Your task to perform on an android device: turn smart compose on in the gmail app Image 0: 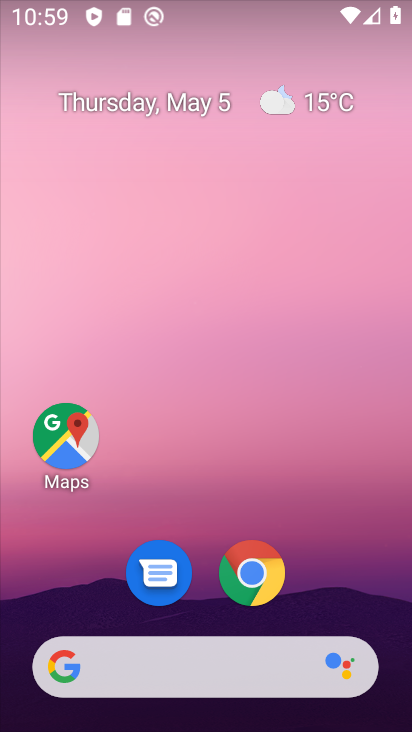
Step 0: drag from (76, 639) to (219, 136)
Your task to perform on an android device: turn smart compose on in the gmail app Image 1: 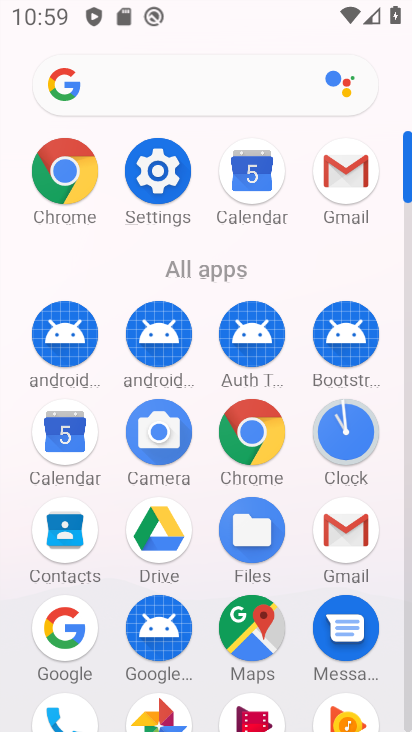
Step 1: click (343, 517)
Your task to perform on an android device: turn smart compose on in the gmail app Image 2: 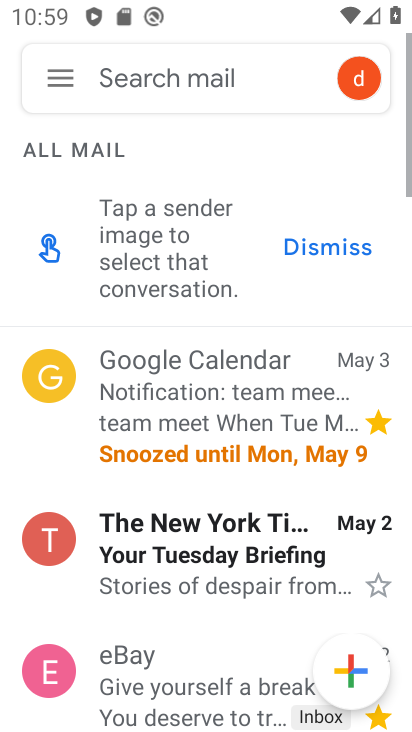
Step 2: click (56, 81)
Your task to perform on an android device: turn smart compose on in the gmail app Image 3: 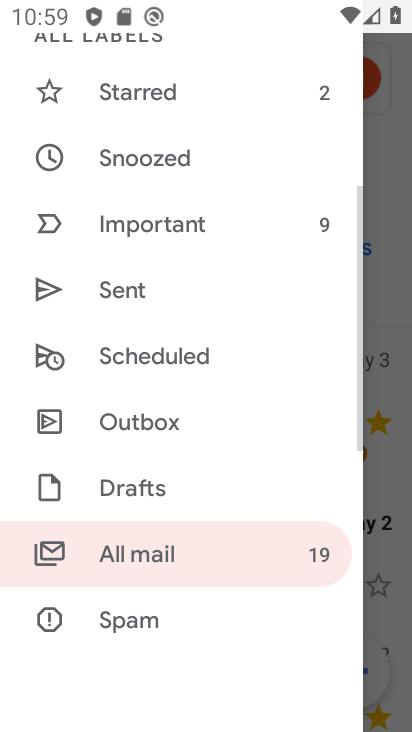
Step 3: drag from (136, 591) to (249, 67)
Your task to perform on an android device: turn smart compose on in the gmail app Image 4: 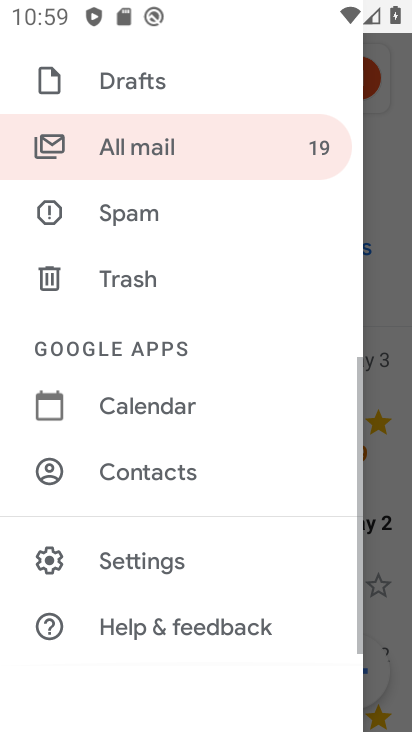
Step 4: click (197, 555)
Your task to perform on an android device: turn smart compose on in the gmail app Image 5: 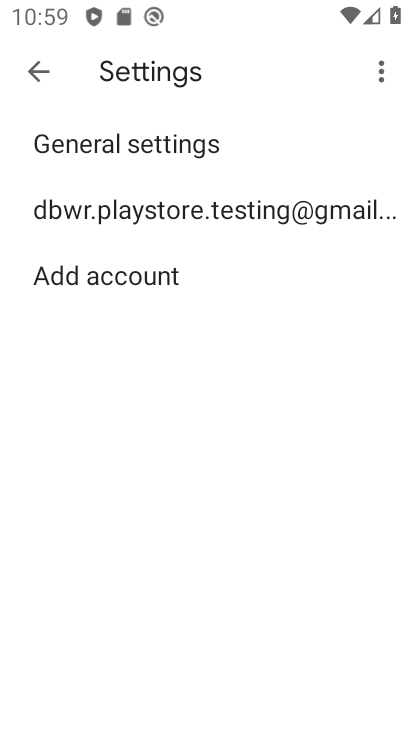
Step 5: click (248, 198)
Your task to perform on an android device: turn smart compose on in the gmail app Image 6: 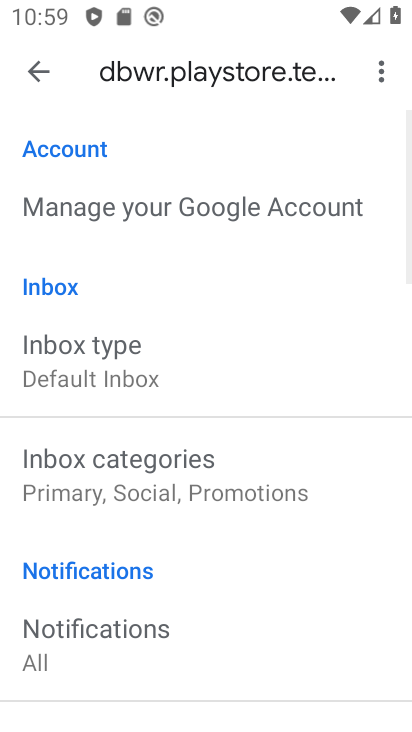
Step 6: task complete